Your task to perform on an android device: Add bose soundlink mini to the cart on amazon Image 0: 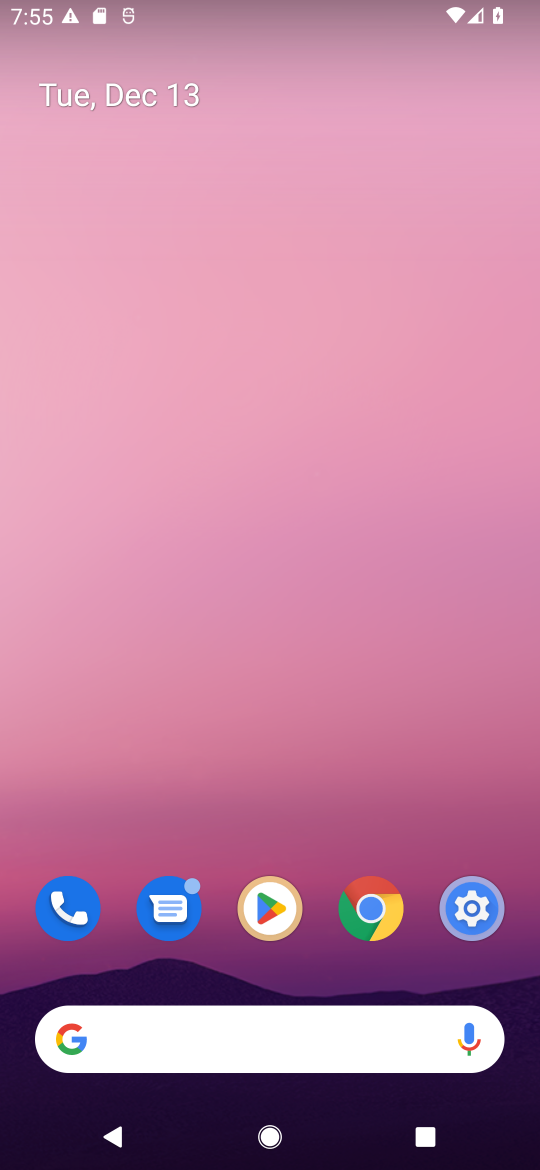
Step 0: click (116, 1037)
Your task to perform on an android device: Add bose soundlink mini to the cart on amazon Image 1: 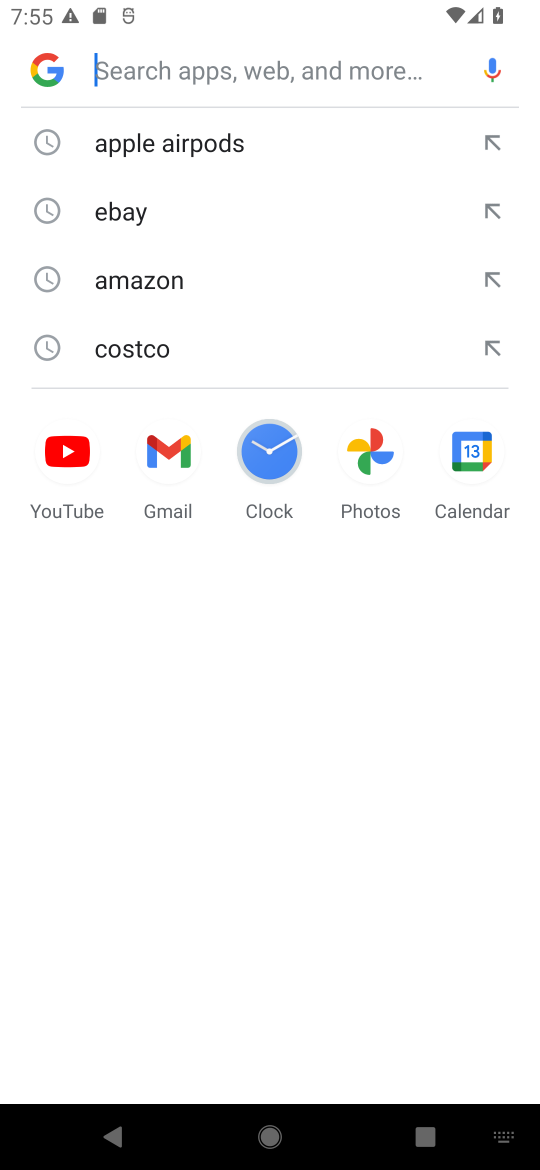
Step 1: type "amazon"
Your task to perform on an android device: Add bose soundlink mini to the cart on amazon Image 2: 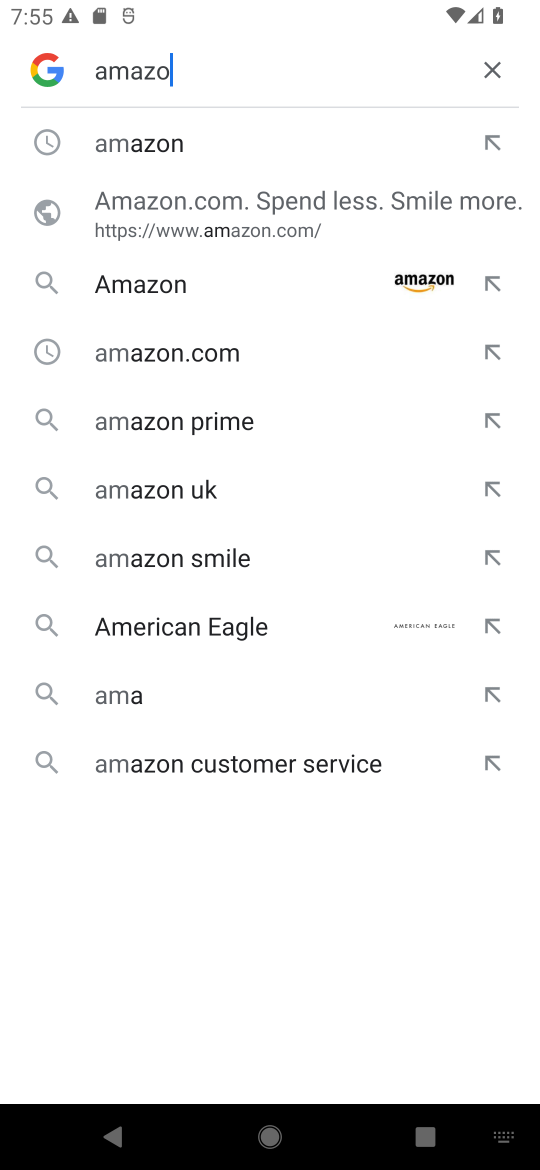
Step 2: press enter
Your task to perform on an android device: Add bose soundlink mini to the cart on amazon Image 3: 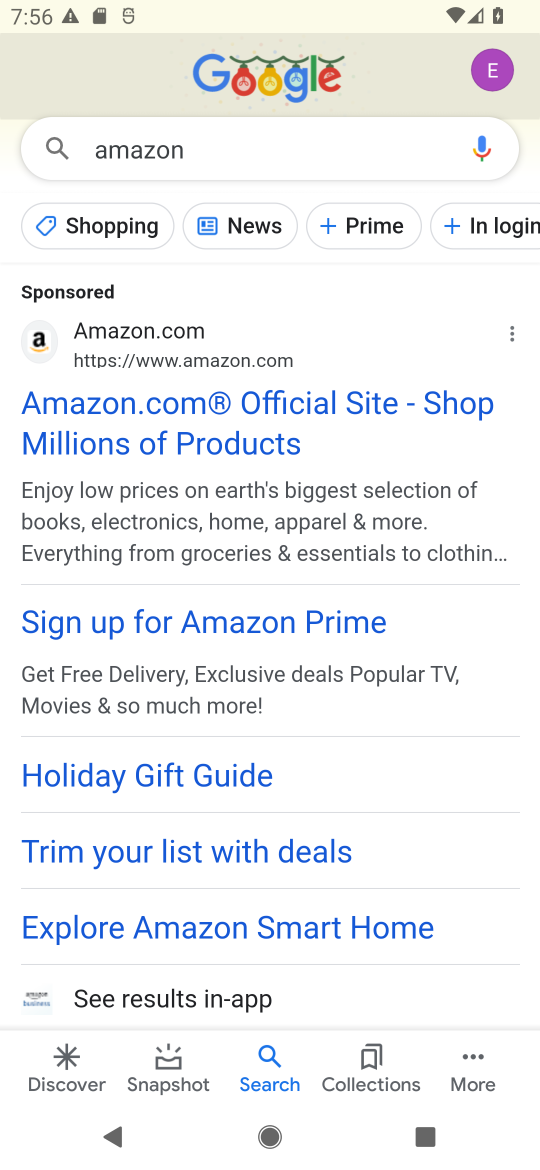
Step 3: click (150, 405)
Your task to perform on an android device: Add bose soundlink mini to the cart on amazon Image 4: 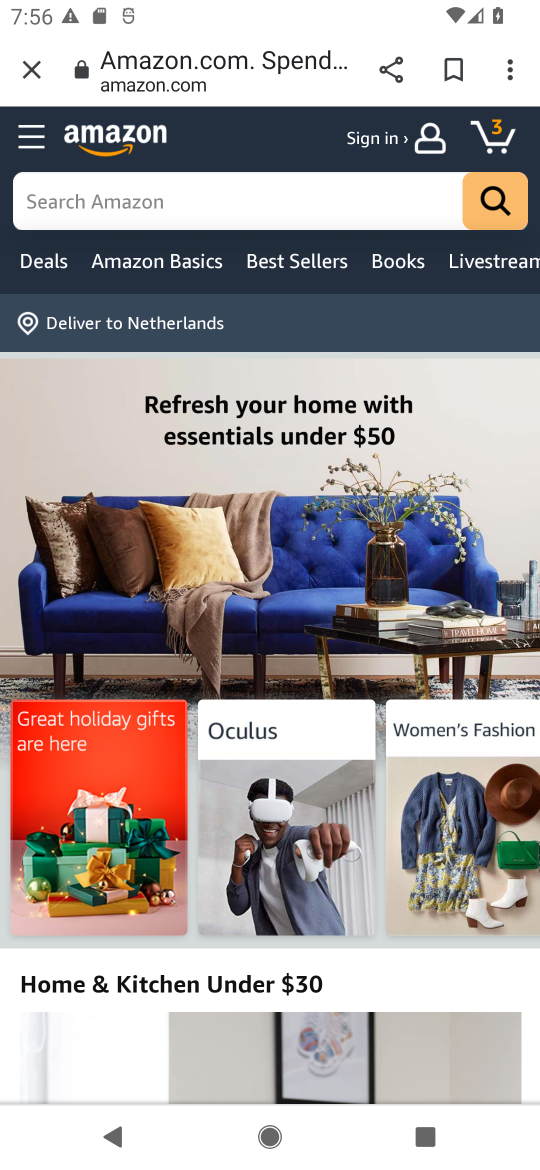
Step 4: click (64, 200)
Your task to perform on an android device: Add bose soundlink mini to the cart on amazon Image 5: 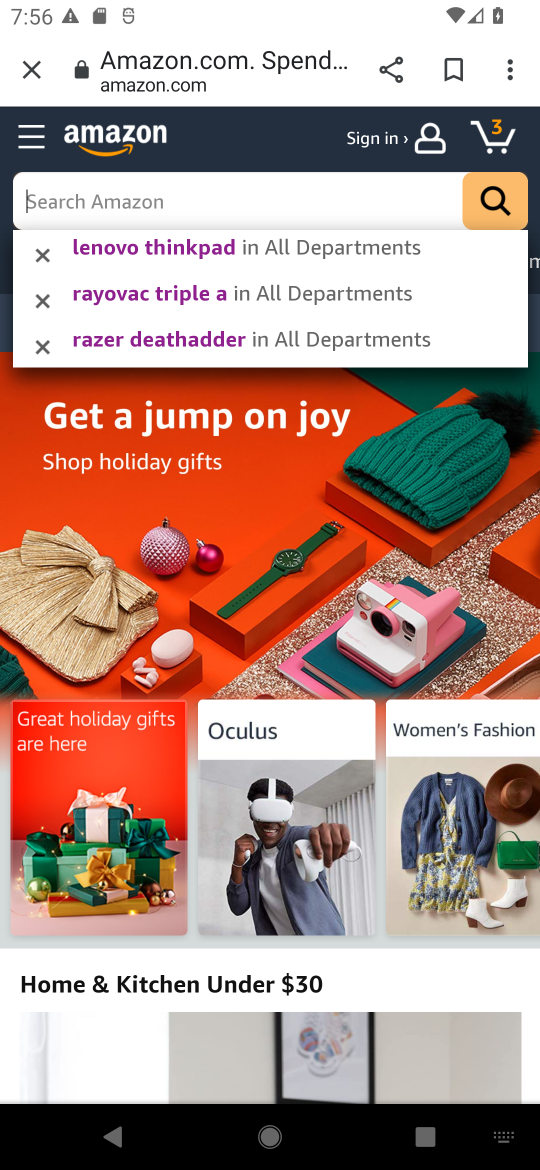
Step 5: type "bose soundlink mini"
Your task to perform on an android device: Add bose soundlink mini to the cart on amazon Image 6: 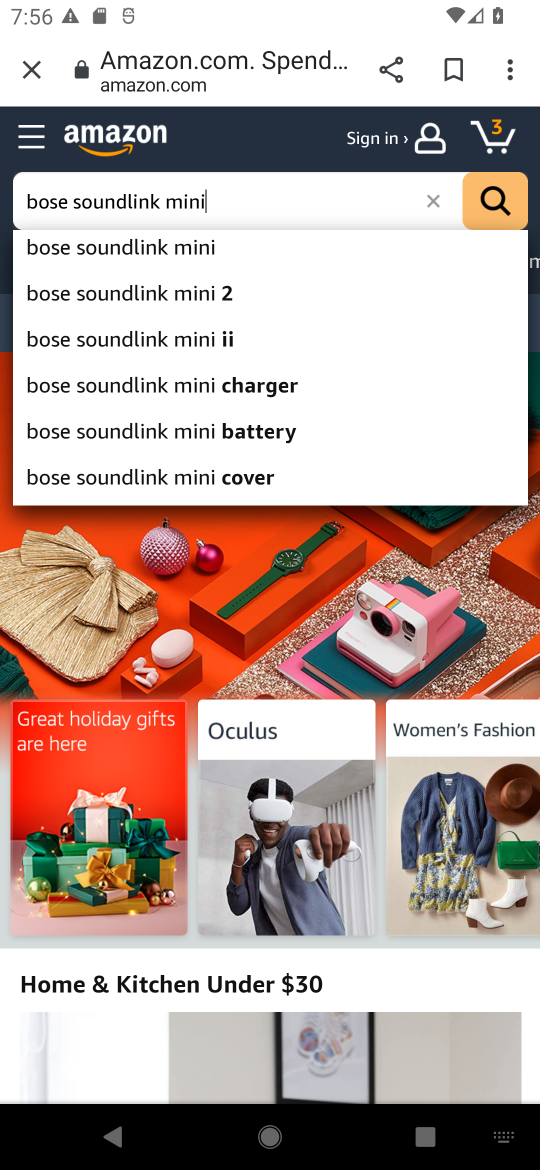
Step 6: click (493, 198)
Your task to perform on an android device: Add bose soundlink mini to the cart on amazon Image 7: 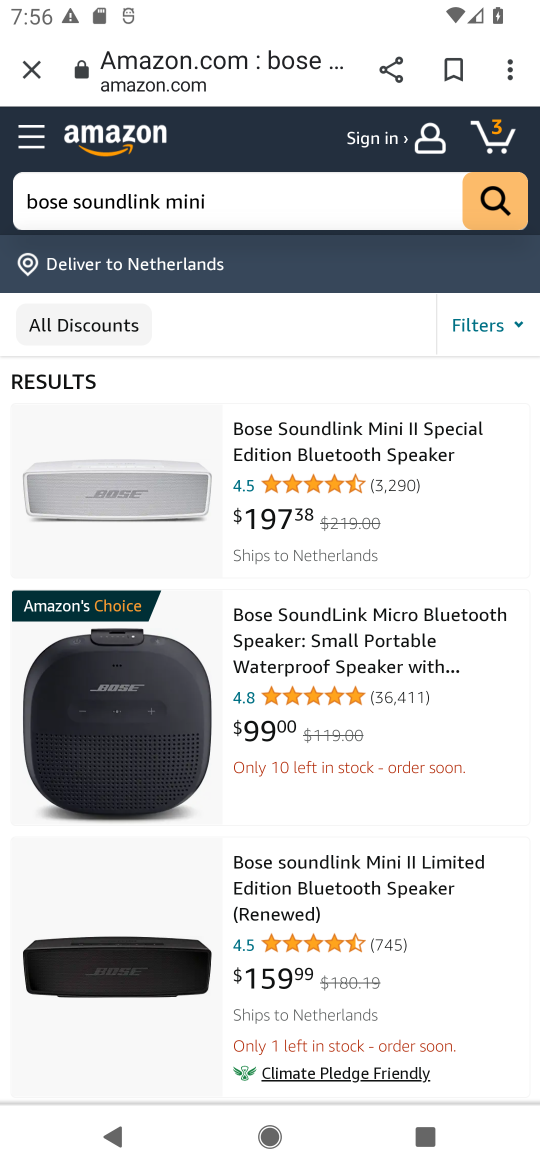
Step 7: click (254, 436)
Your task to perform on an android device: Add bose soundlink mini to the cart on amazon Image 8: 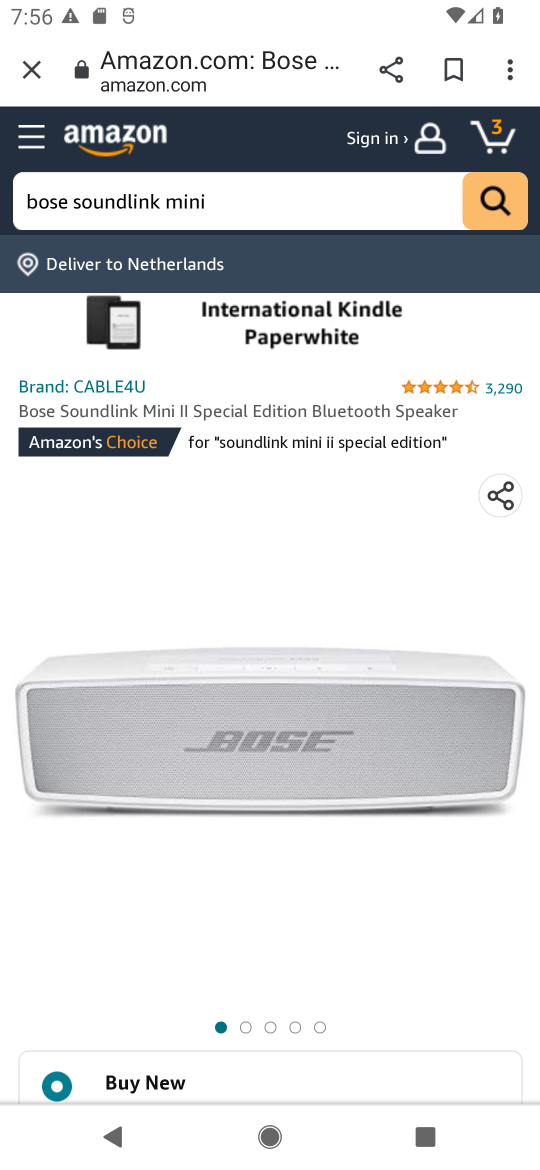
Step 8: drag from (314, 957) to (304, 386)
Your task to perform on an android device: Add bose soundlink mini to the cart on amazon Image 9: 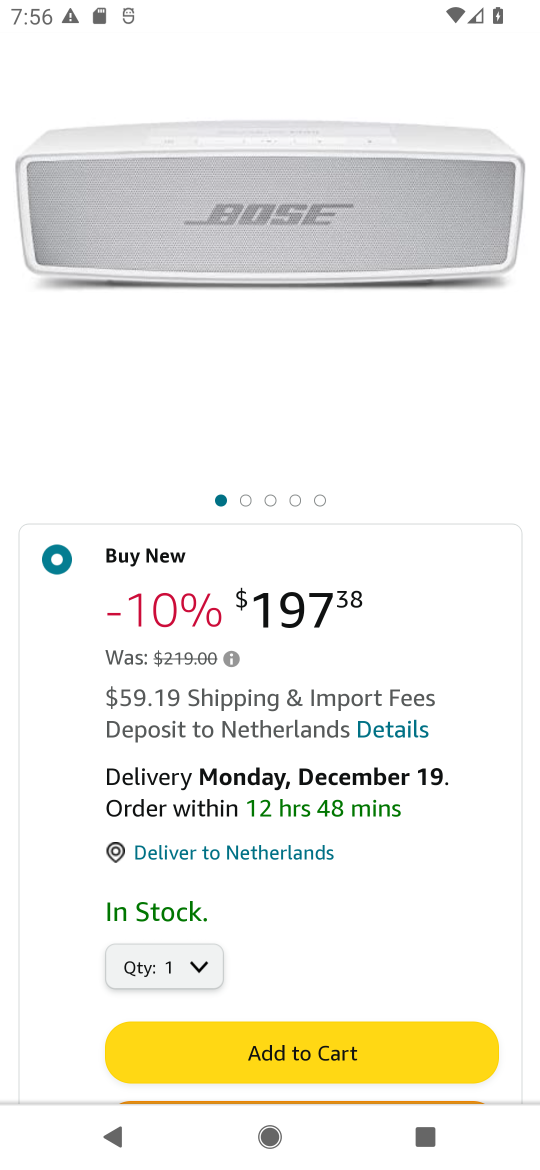
Step 9: drag from (336, 845) to (327, 409)
Your task to perform on an android device: Add bose soundlink mini to the cart on amazon Image 10: 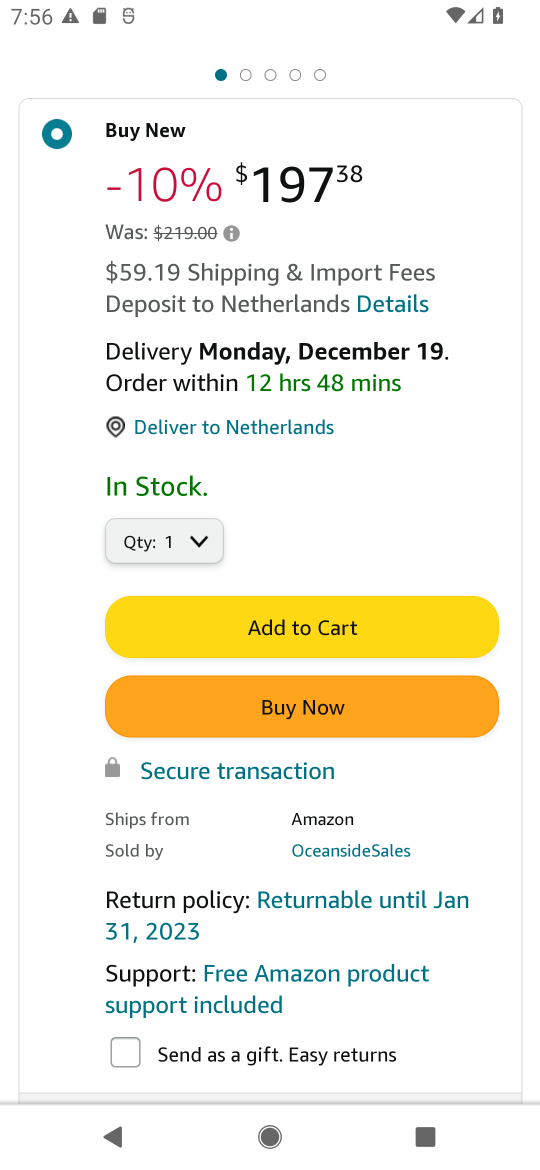
Step 10: click (258, 624)
Your task to perform on an android device: Add bose soundlink mini to the cart on amazon Image 11: 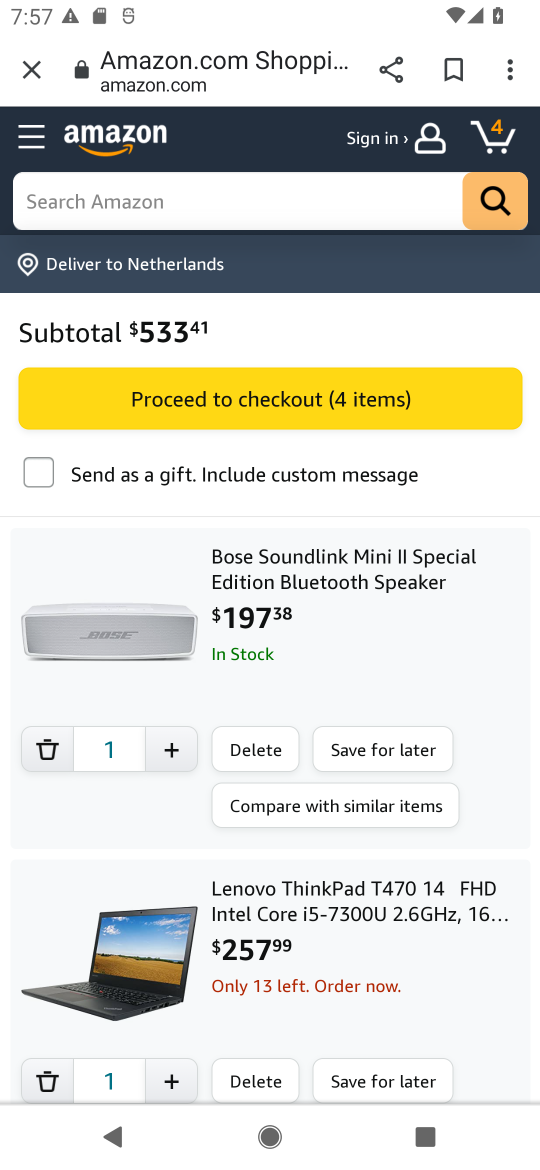
Step 11: task complete